Your task to perform on an android device: toggle improve location accuracy Image 0: 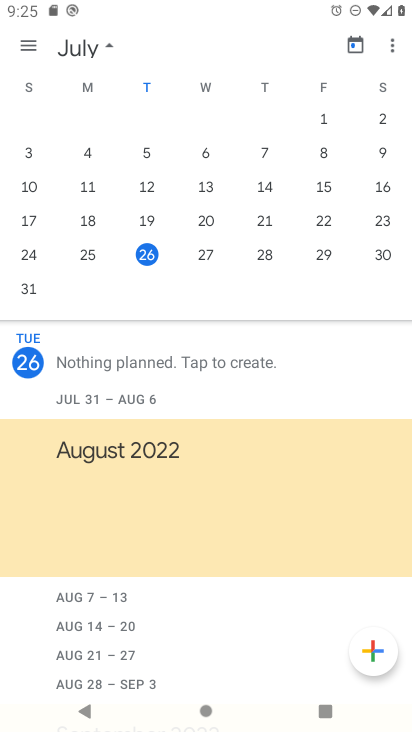
Step 0: press home button
Your task to perform on an android device: toggle improve location accuracy Image 1: 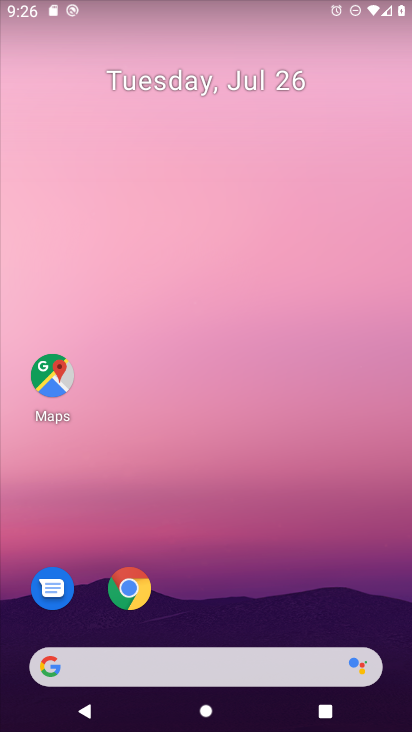
Step 1: drag from (254, 641) to (330, 127)
Your task to perform on an android device: toggle improve location accuracy Image 2: 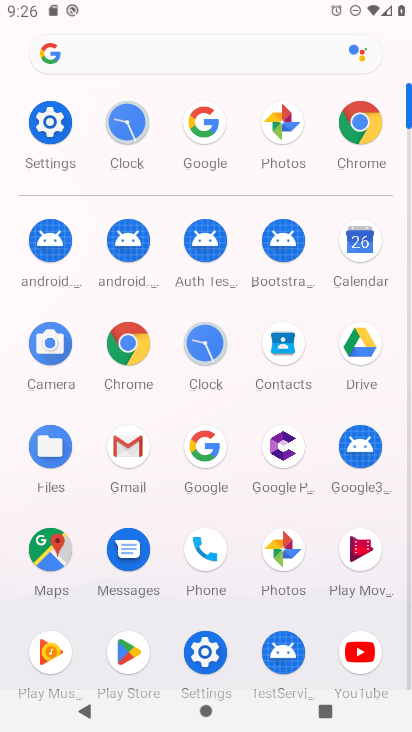
Step 2: click (222, 649)
Your task to perform on an android device: toggle improve location accuracy Image 3: 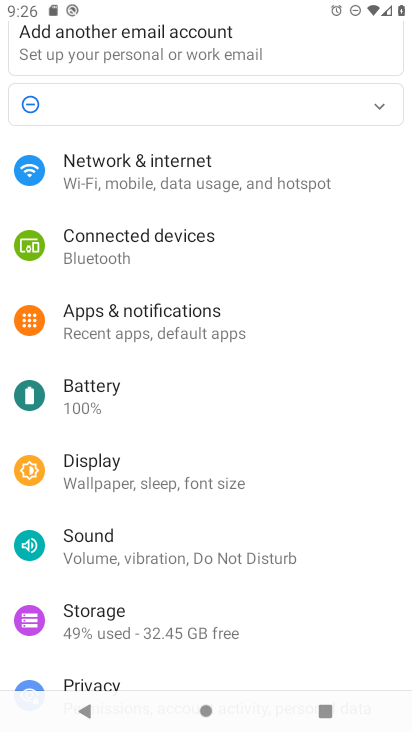
Step 3: drag from (111, 572) to (253, 317)
Your task to perform on an android device: toggle improve location accuracy Image 4: 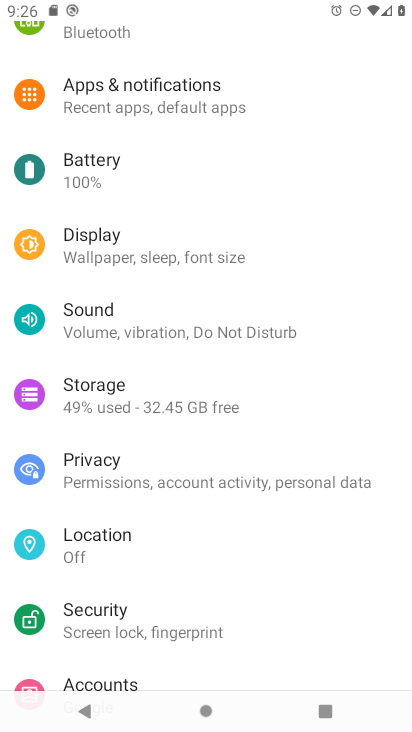
Step 4: click (142, 541)
Your task to perform on an android device: toggle improve location accuracy Image 5: 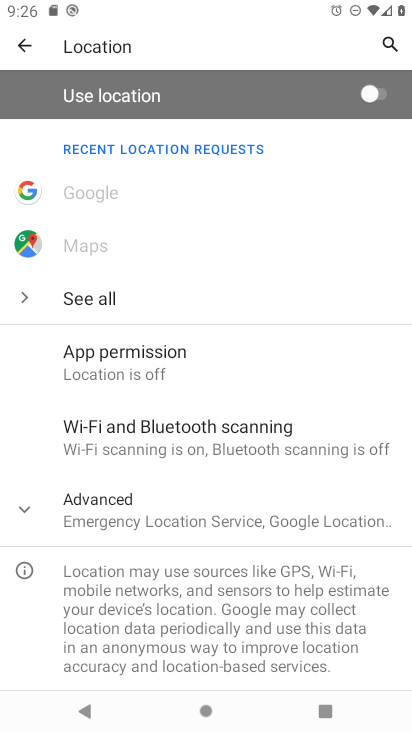
Step 5: click (137, 511)
Your task to perform on an android device: toggle improve location accuracy Image 6: 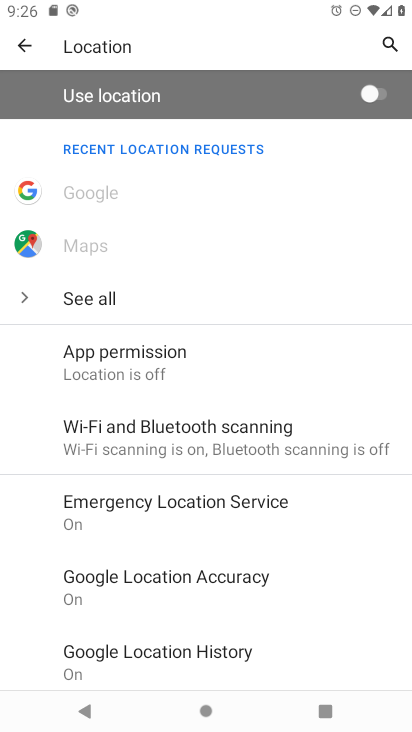
Step 6: click (182, 607)
Your task to perform on an android device: toggle improve location accuracy Image 7: 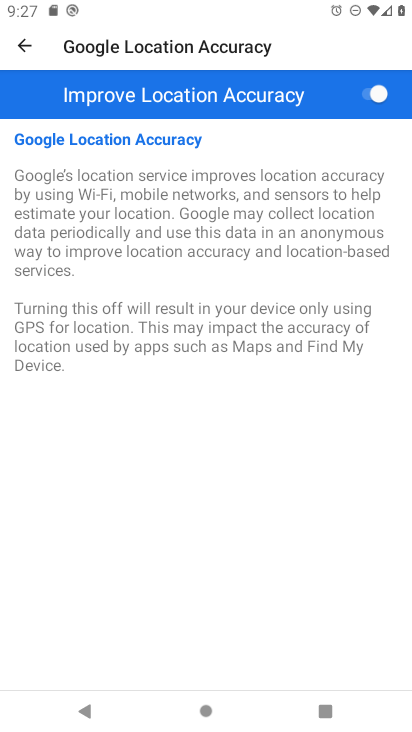
Step 7: click (351, 101)
Your task to perform on an android device: toggle improve location accuracy Image 8: 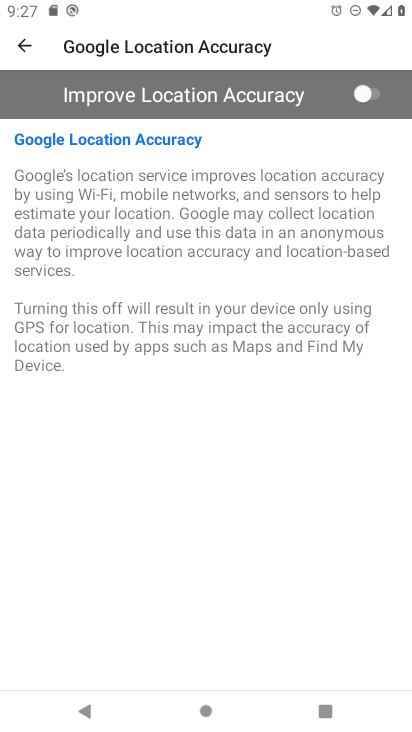
Step 8: task complete